Your task to perform on an android device: What is the recent news? Image 0: 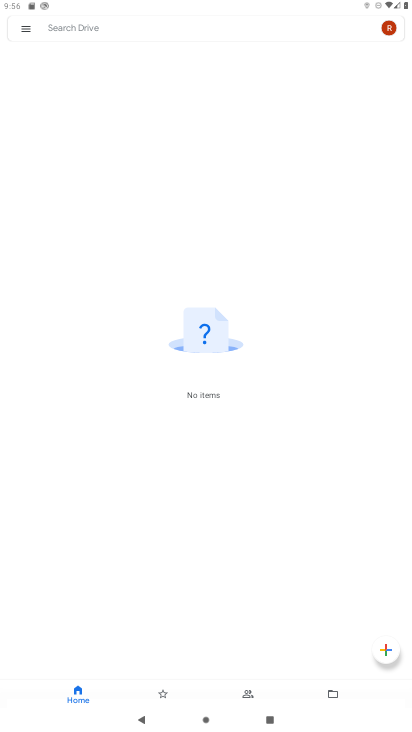
Step 0: press home button
Your task to perform on an android device: What is the recent news? Image 1: 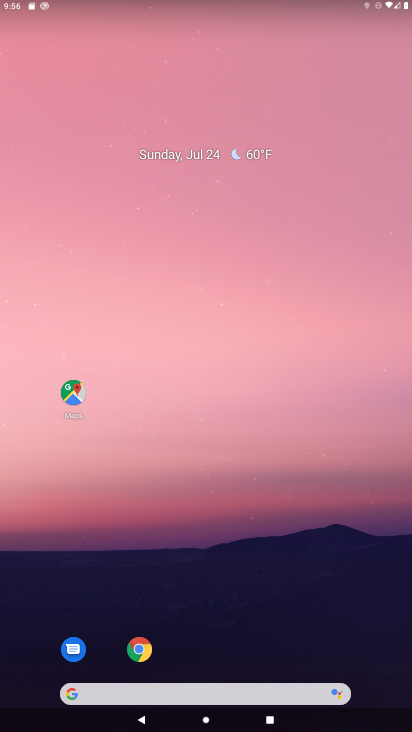
Step 1: drag from (351, 636) to (293, 104)
Your task to perform on an android device: What is the recent news? Image 2: 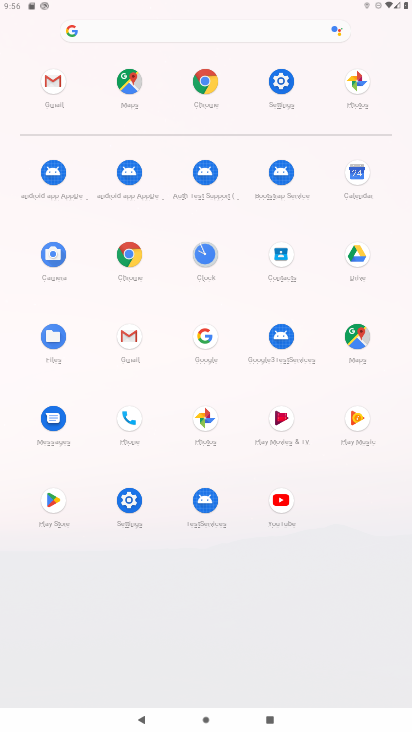
Step 2: click (206, 78)
Your task to perform on an android device: What is the recent news? Image 3: 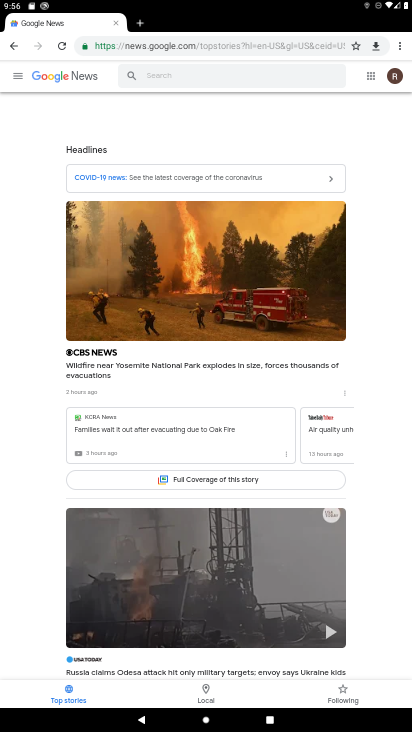
Step 3: click (225, 36)
Your task to perform on an android device: What is the recent news? Image 4: 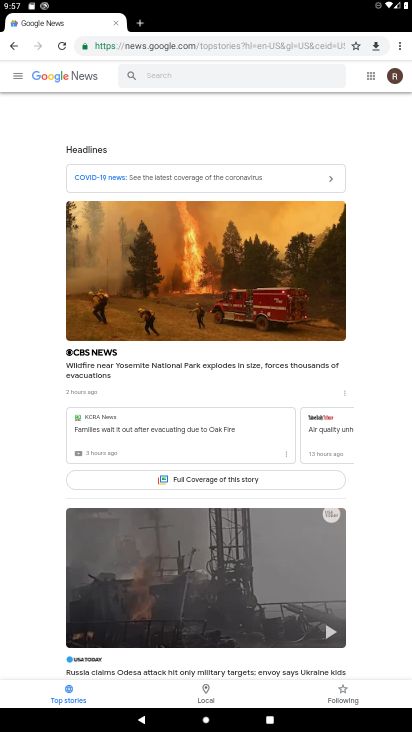
Step 4: task complete